Your task to perform on an android device: Show me productivity apps on the Play Store Image 0: 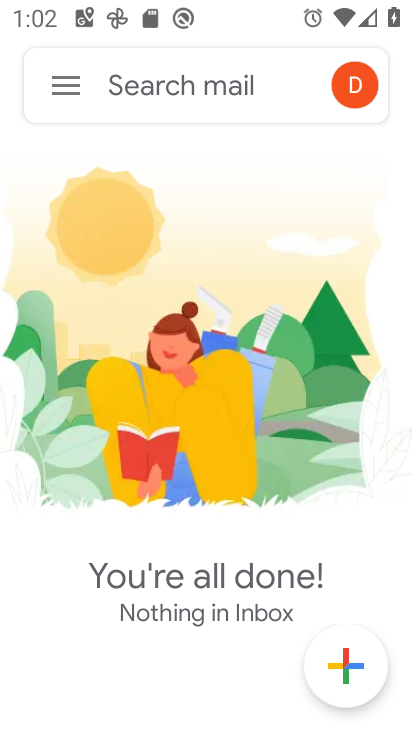
Step 0: press home button
Your task to perform on an android device: Show me productivity apps on the Play Store Image 1: 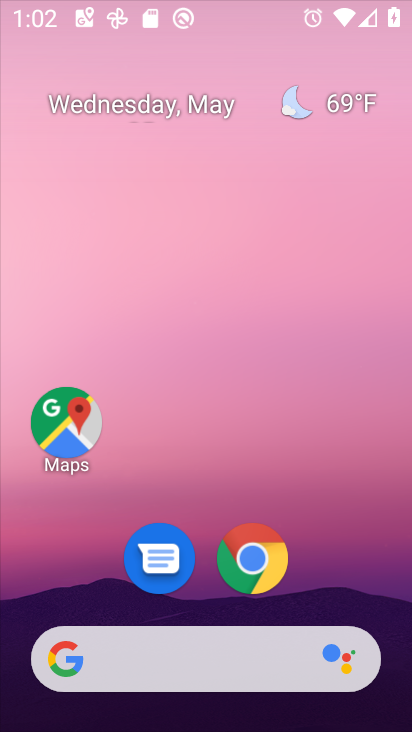
Step 1: drag from (384, 649) to (251, 52)
Your task to perform on an android device: Show me productivity apps on the Play Store Image 2: 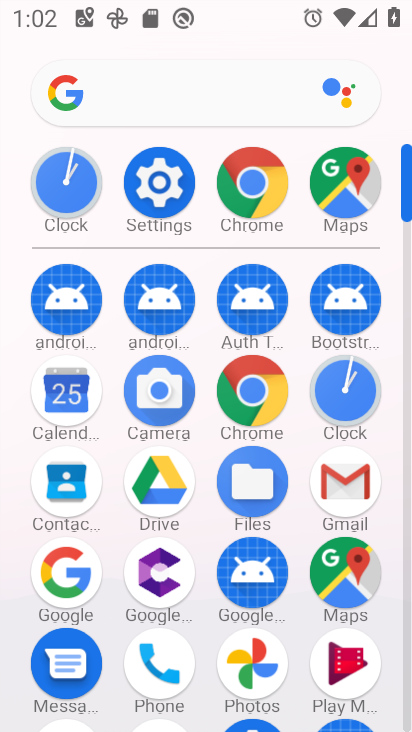
Step 2: drag from (197, 672) to (209, 163)
Your task to perform on an android device: Show me productivity apps on the Play Store Image 3: 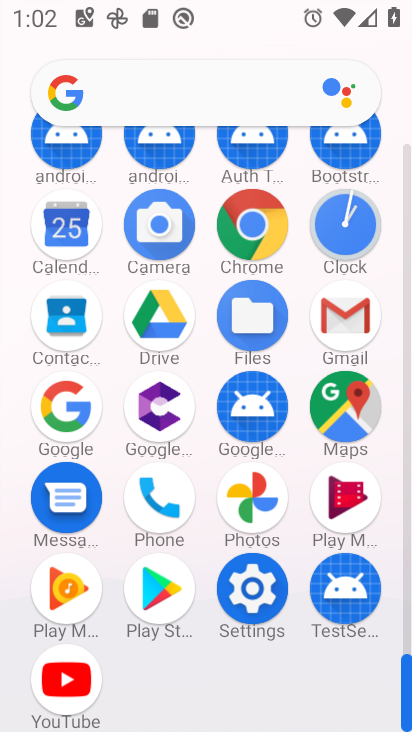
Step 3: click (148, 603)
Your task to perform on an android device: Show me productivity apps on the Play Store Image 4: 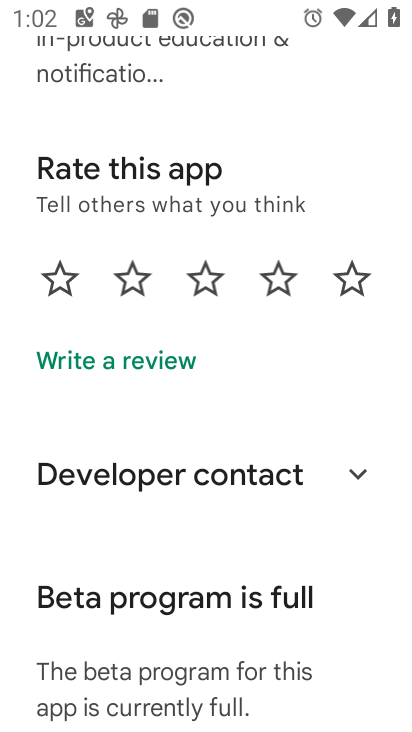
Step 4: task complete